Your task to perform on an android device: turn off notifications in google photos Image 0: 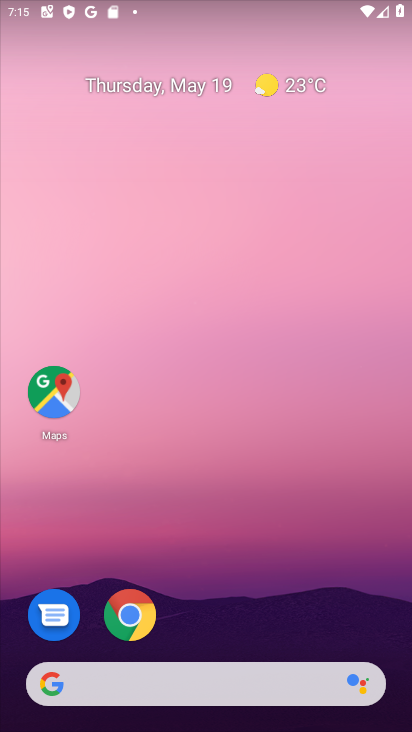
Step 0: drag from (338, 615) to (275, 28)
Your task to perform on an android device: turn off notifications in google photos Image 1: 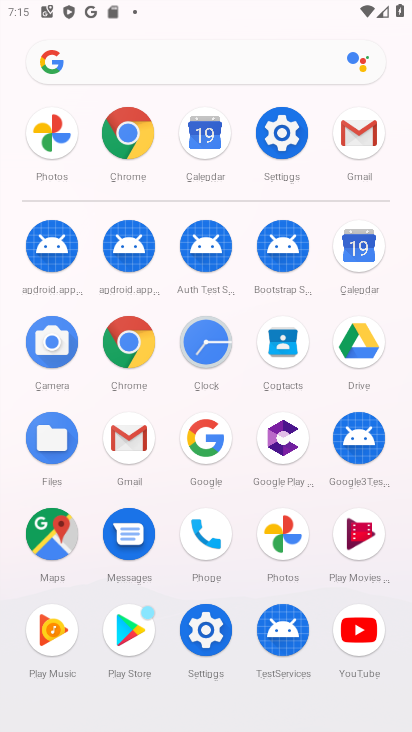
Step 1: click (283, 534)
Your task to perform on an android device: turn off notifications in google photos Image 2: 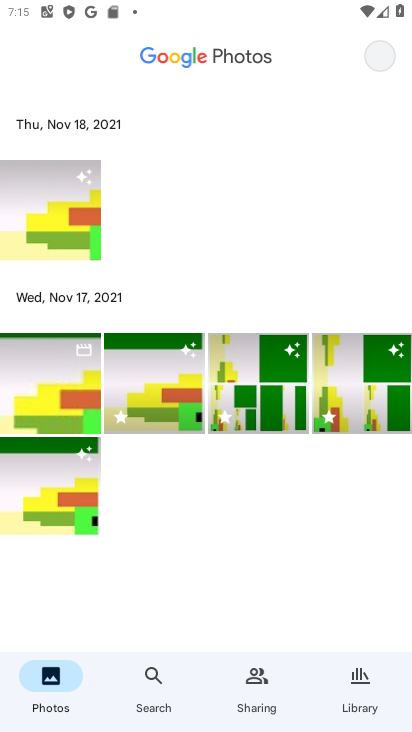
Step 2: click (388, 58)
Your task to perform on an android device: turn off notifications in google photos Image 3: 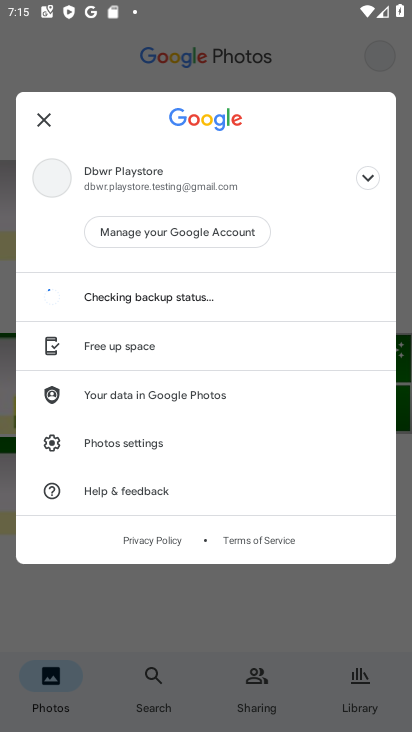
Step 3: click (138, 456)
Your task to perform on an android device: turn off notifications in google photos Image 4: 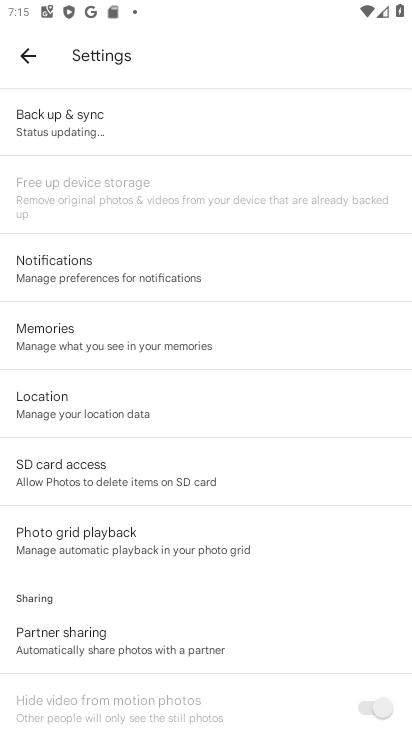
Step 4: click (183, 273)
Your task to perform on an android device: turn off notifications in google photos Image 5: 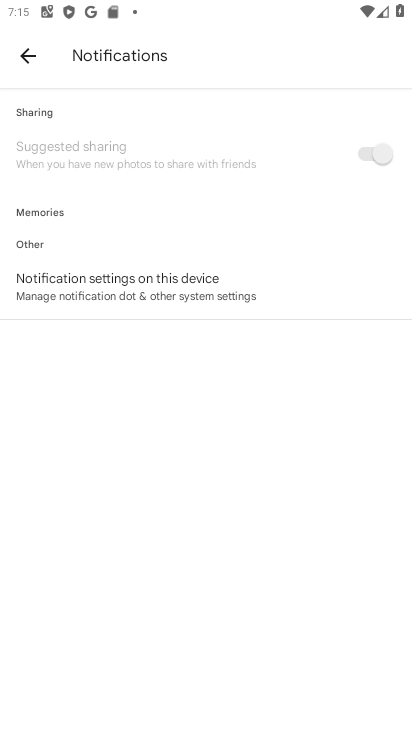
Step 5: task complete